Your task to perform on an android device: open a new tab in the chrome app Image 0: 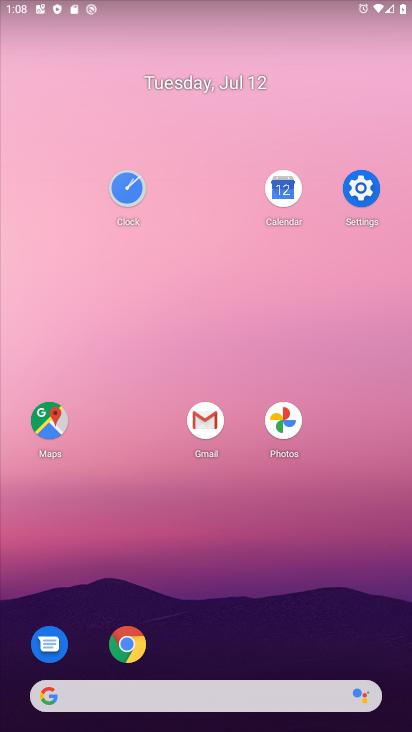
Step 0: click (126, 649)
Your task to perform on an android device: open a new tab in the chrome app Image 1: 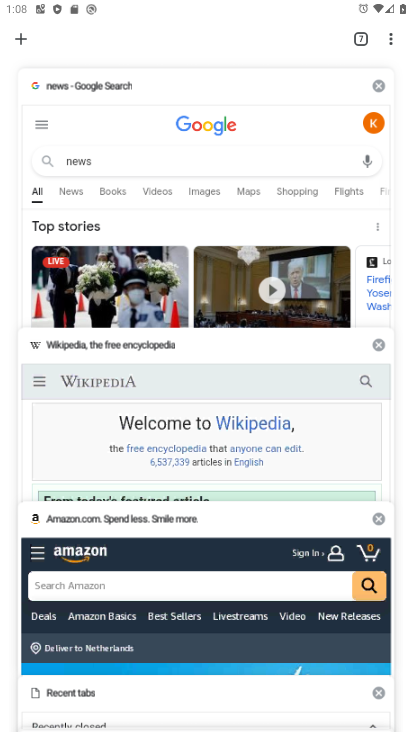
Step 1: click (366, 41)
Your task to perform on an android device: open a new tab in the chrome app Image 2: 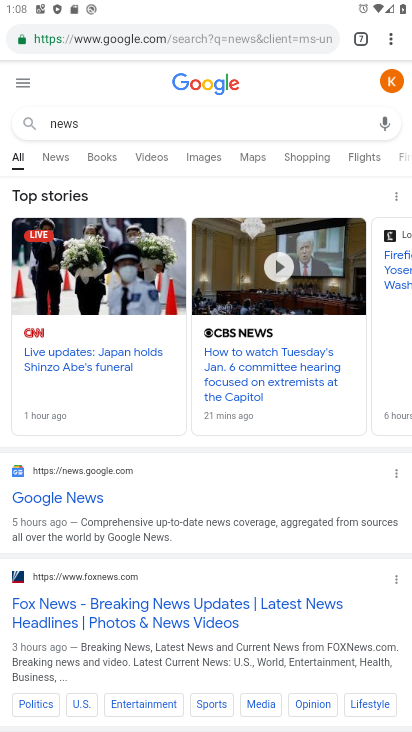
Step 2: click (364, 26)
Your task to perform on an android device: open a new tab in the chrome app Image 3: 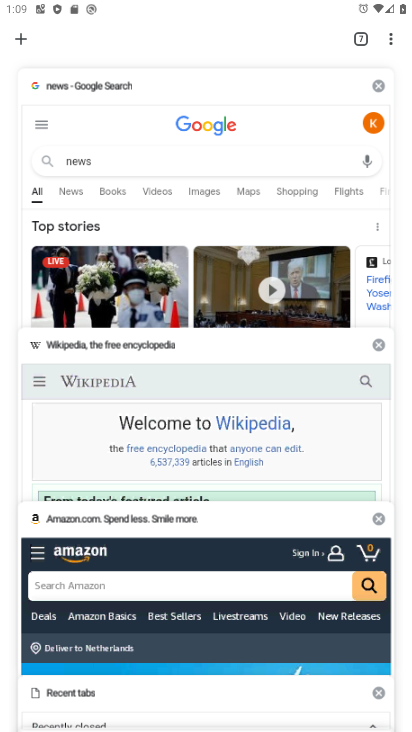
Step 3: click (19, 37)
Your task to perform on an android device: open a new tab in the chrome app Image 4: 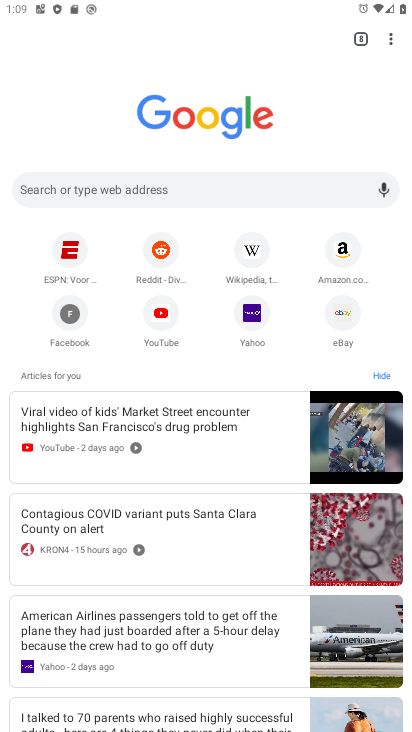
Step 4: task complete